Your task to perform on an android device: all mails in gmail Image 0: 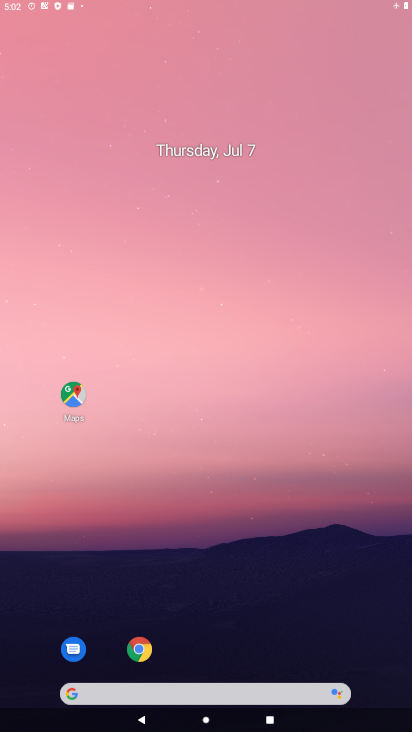
Step 0: click (193, 70)
Your task to perform on an android device: all mails in gmail Image 1: 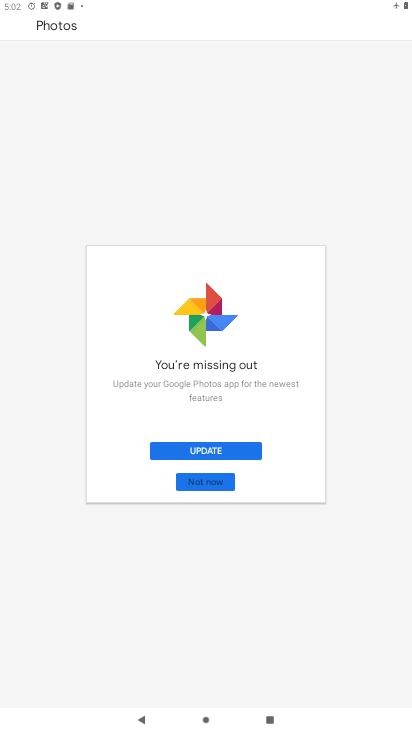
Step 1: press home button
Your task to perform on an android device: all mails in gmail Image 2: 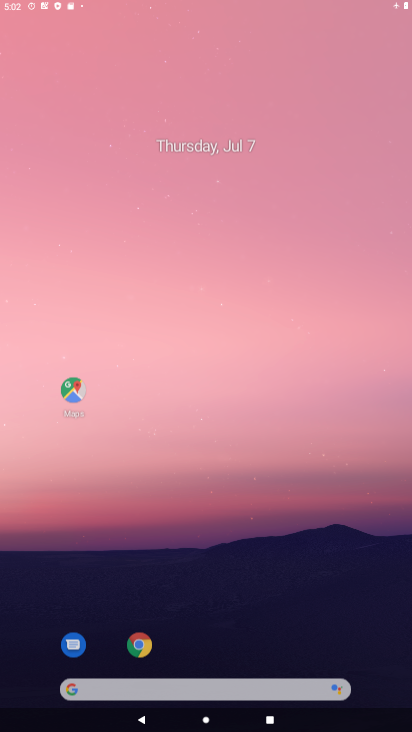
Step 2: drag from (363, 698) to (229, 32)
Your task to perform on an android device: all mails in gmail Image 3: 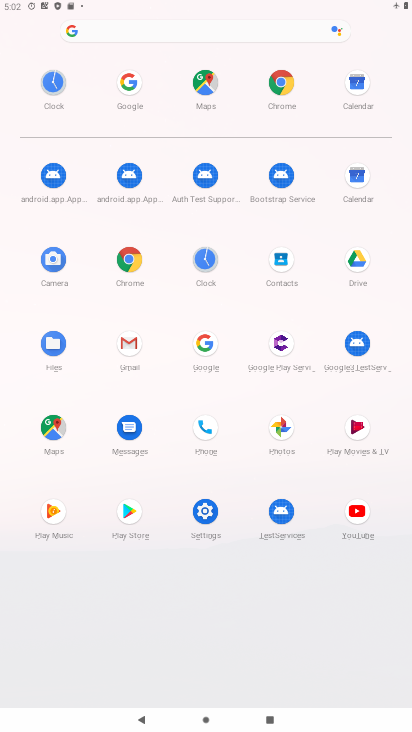
Step 3: click (134, 344)
Your task to perform on an android device: all mails in gmail Image 4: 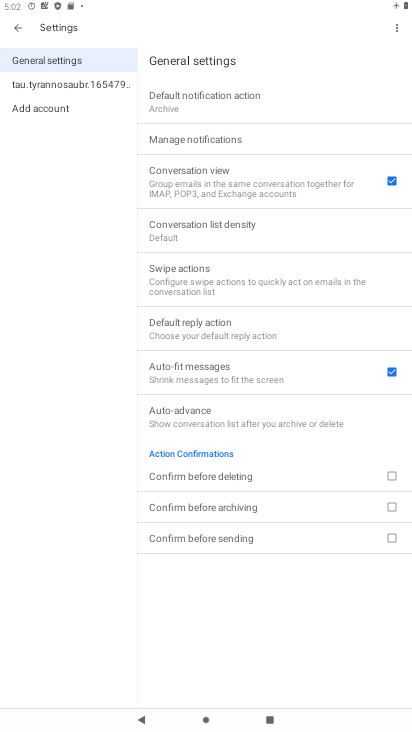
Step 4: press back button
Your task to perform on an android device: all mails in gmail Image 5: 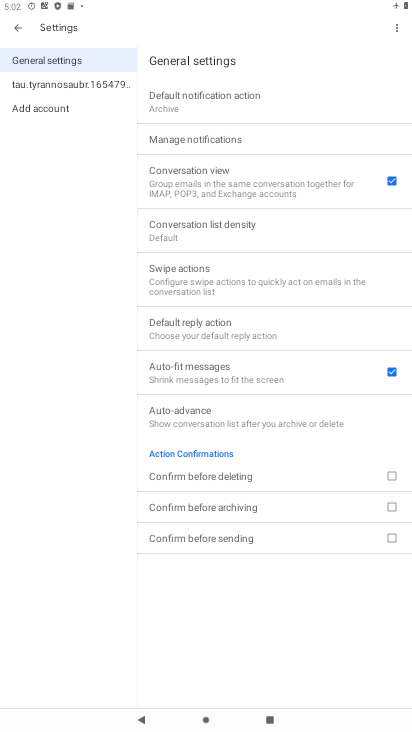
Step 5: press back button
Your task to perform on an android device: all mails in gmail Image 6: 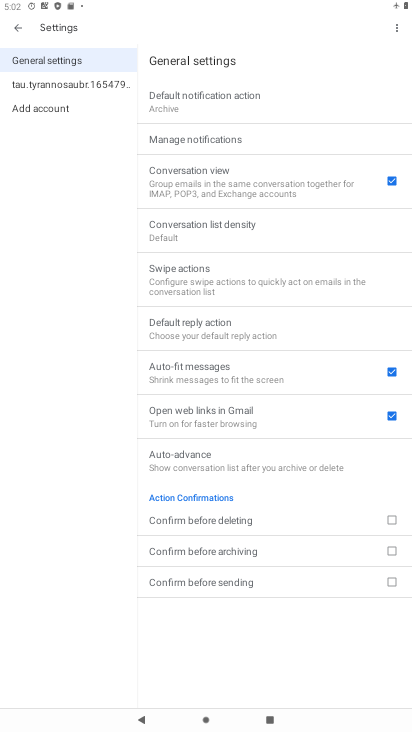
Step 6: press back button
Your task to perform on an android device: all mails in gmail Image 7: 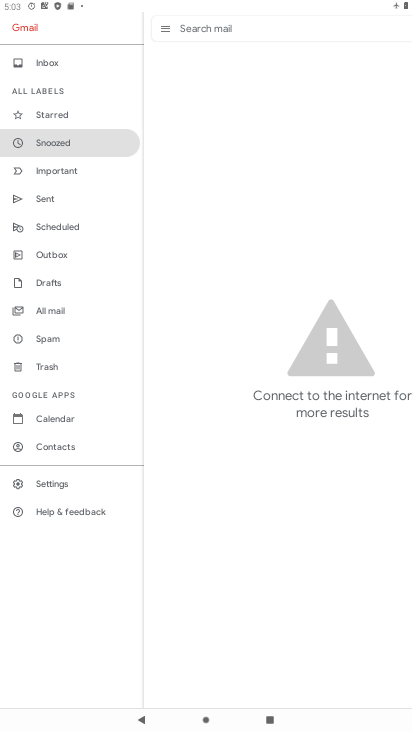
Step 7: click (79, 59)
Your task to perform on an android device: all mails in gmail Image 8: 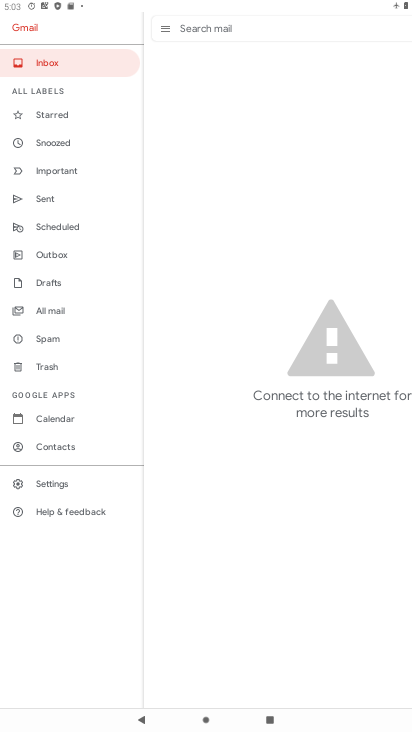
Step 8: drag from (26, 142) to (89, 456)
Your task to perform on an android device: all mails in gmail Image 9: 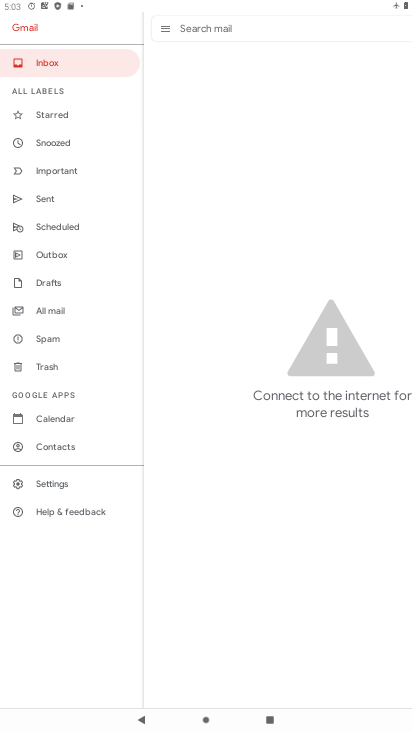
Step 9: click (55, 309)
Your task to perform on an android device: all mails in gmail Image 10: 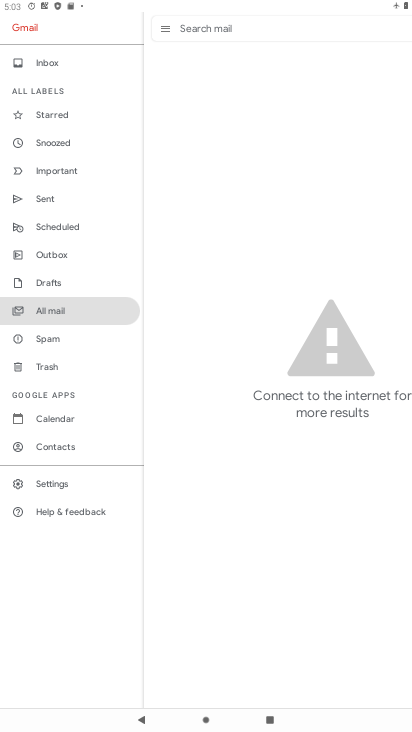
Step 10: task complete